Your task to perform on an android device: Open settings Image 0: 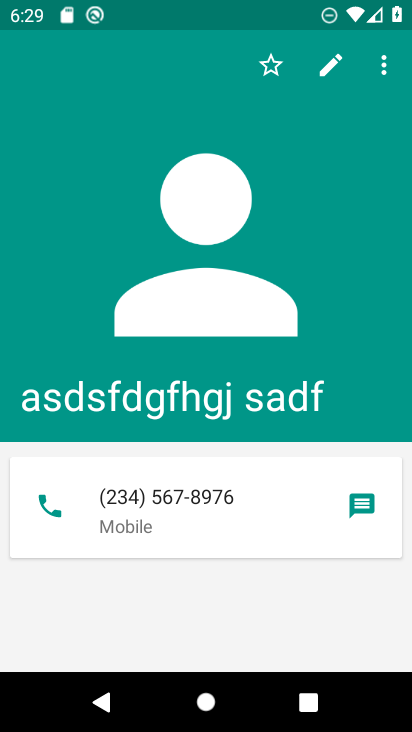
Step 0: press home button
Your task to perform on an android device: Open settings Image 1: 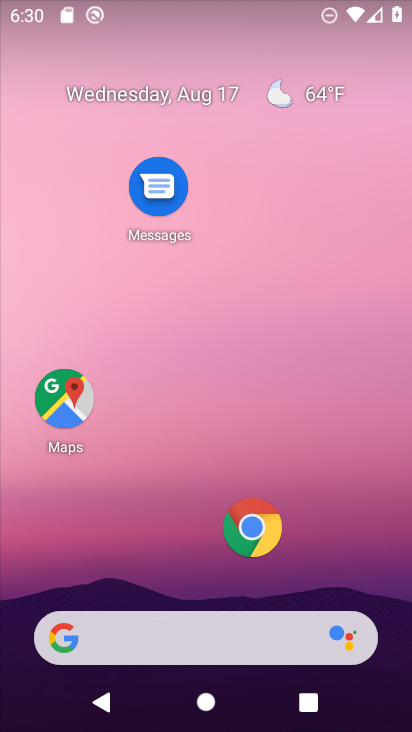
Step 1: drag from (164, 597) to (184, 137)
Your task to perform on an android device: Open settings Image 2: 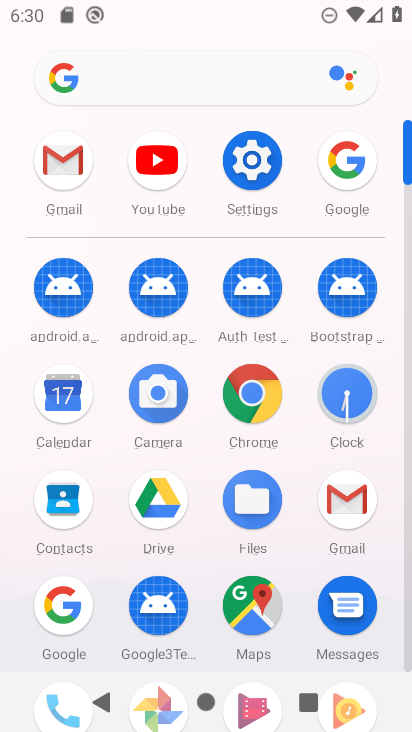
Step 2: click (242, 164)
Your task to perform on an android device: Open settings Image 3: 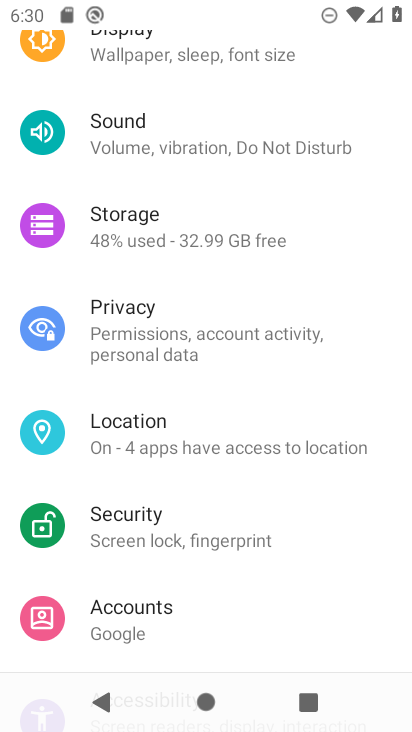
Step 3: click (152, 431)
Your task to perform on an android device: Open settings Image 4: 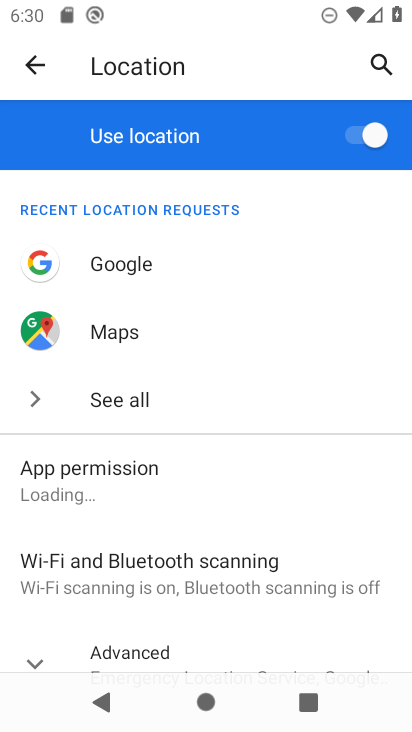
Step 4: click (17, 68)
Your task to perform on an android device: Open settings Image 5: 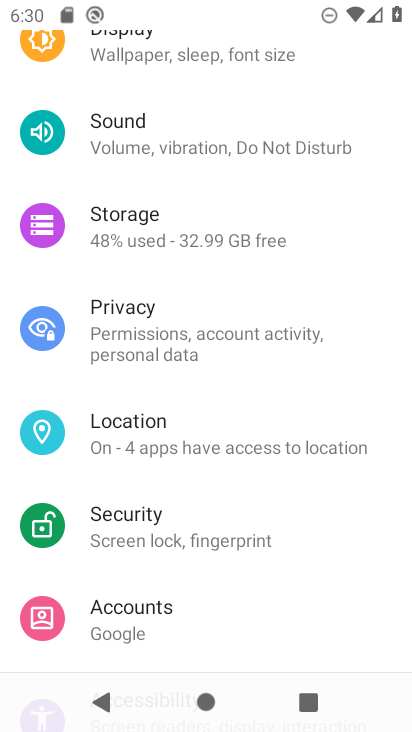
Step 5: task complete